Your task to perform on an android device: What's the weather? Image 0: 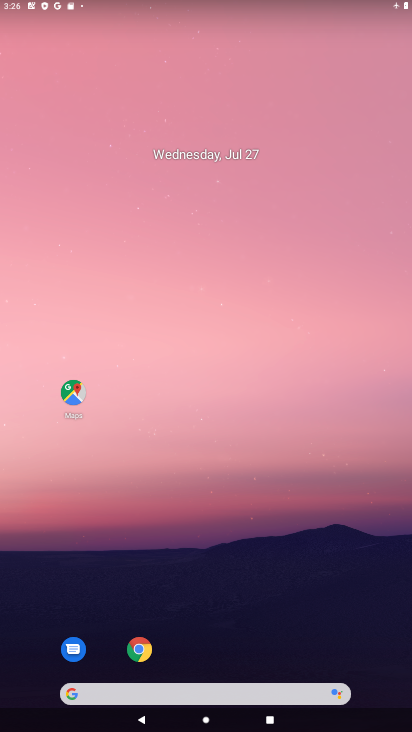
Step 0: click (227, 692)
Your task to perform on an android device: What's the weather? Image 1: 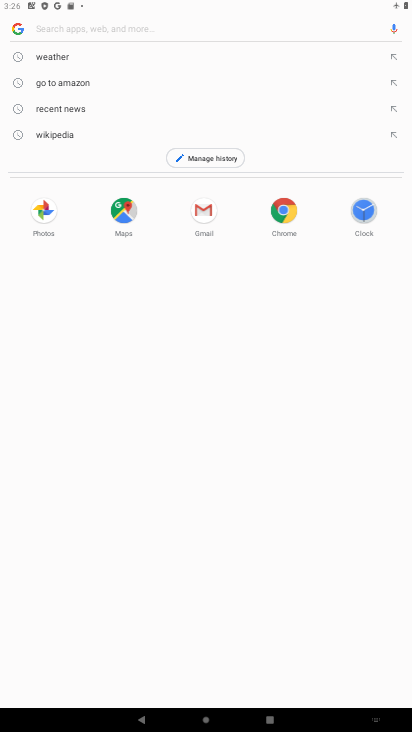
Step 1: type "What's the weather?"
Your task to perform on an android device: What's the weather? Image 2: 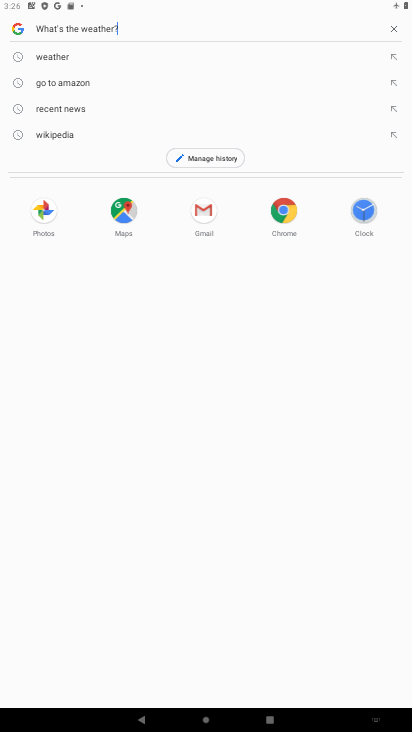
Step 2: type ""
Your task to perform on an android device: What's the weather? Image 3: 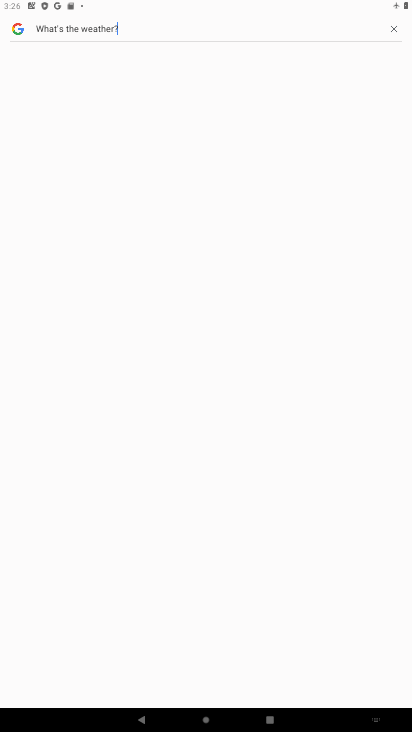
Step 3: press enter
Your task to perform on an android device: What's the weather? Image 4: 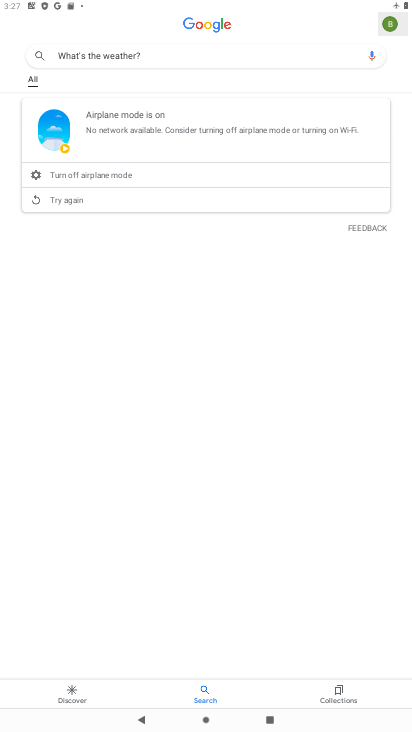
Step 4: task complete